Your task to perform on an android device: Go to Wikipedia Image 0: 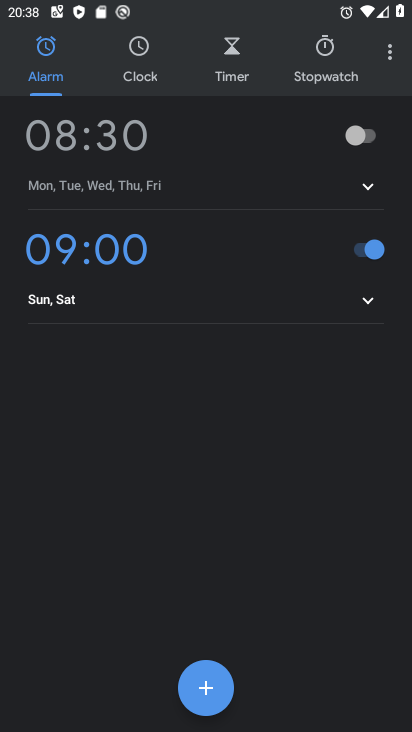
Step 0: press home button
Your task to perform on an android device: Go to Wikipedia Image 1: 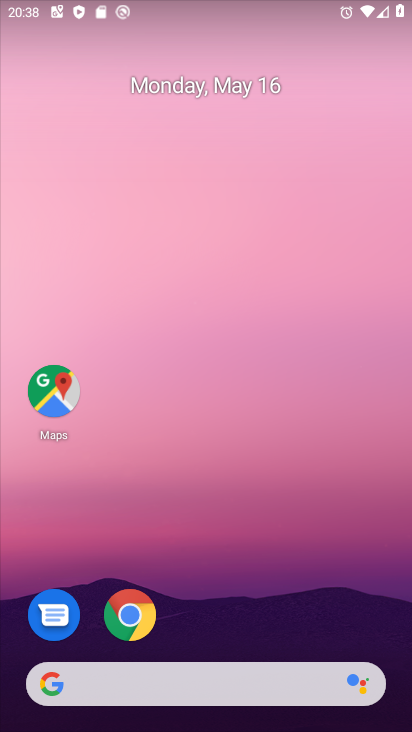
Step 1: click (133, 619)
Your task to perform on an android device: Go to Wikipedia Image 2: 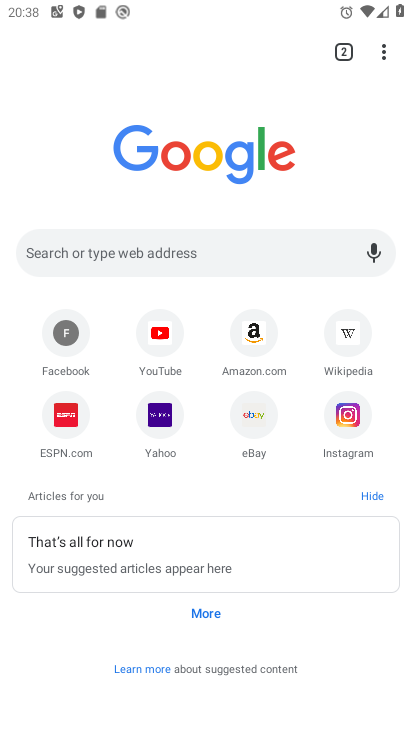
Step 2: click (350, 328)
Your task to perform on an android device: Go to Wikipedia Image 3: 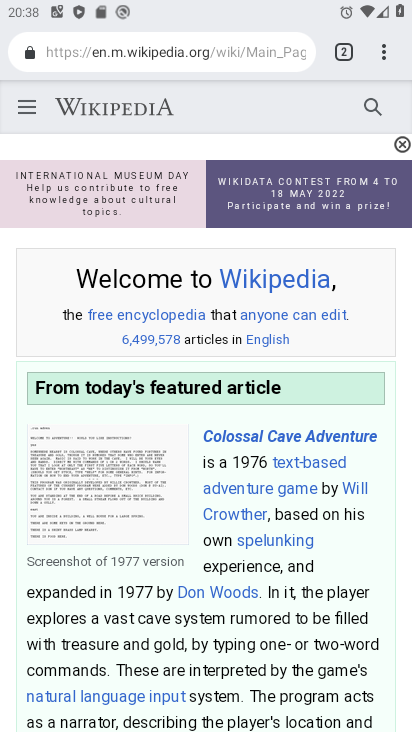
Step 3: task complete